Your task to perform on an android device: Show me recent news Image 0: 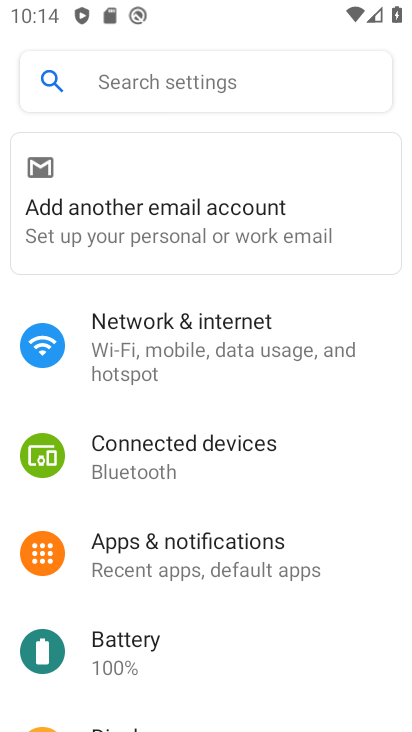
Step 0: press home button
Your task to perform on an android device: Show me recent news Image 1: 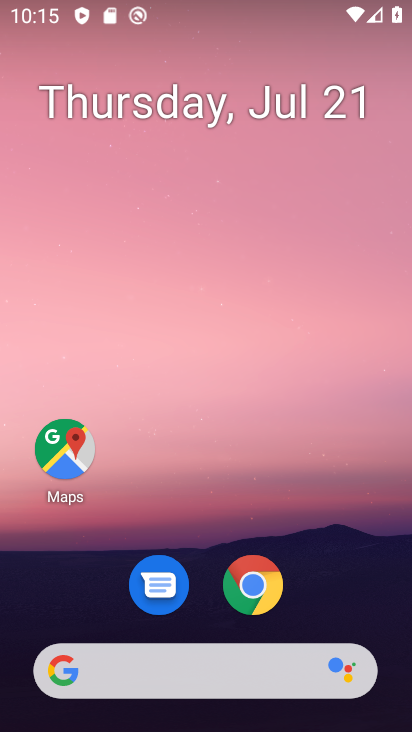
Step 1: click (156, 666)
Your task to perform on an android device: Show me recent news Image 2: 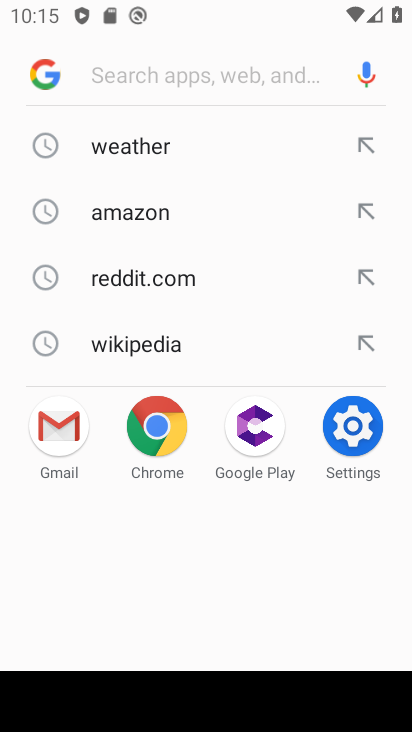
Step 2: type "recent news"
Your task to perform on an android device: Show me recent news Image 3: 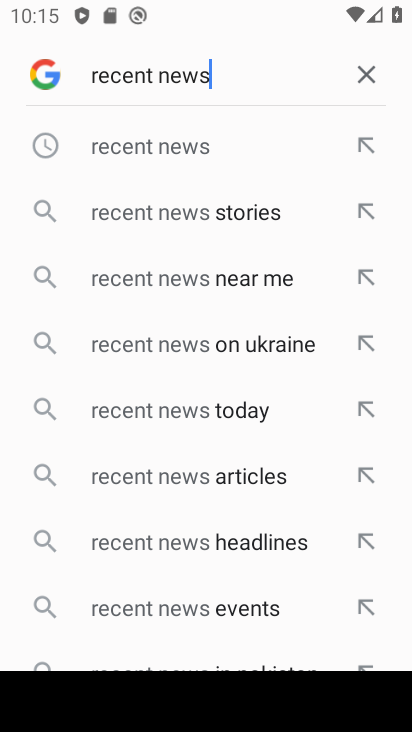
Step 3: click (155, 141)
Your task to perform on an android device: Show me recent news Image 4: 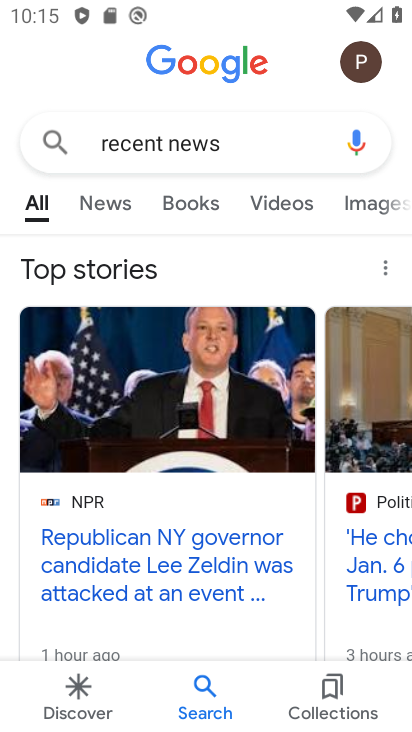
Step 4: click (114, 201)
Your task to perform on an android device: Show me recent news Image 5: 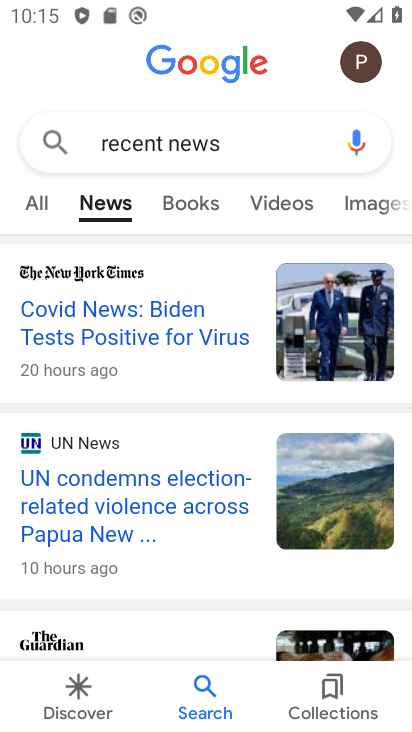
Step 5: task complete